Your task to perform on an android device: change the clock display to digital Image 0: 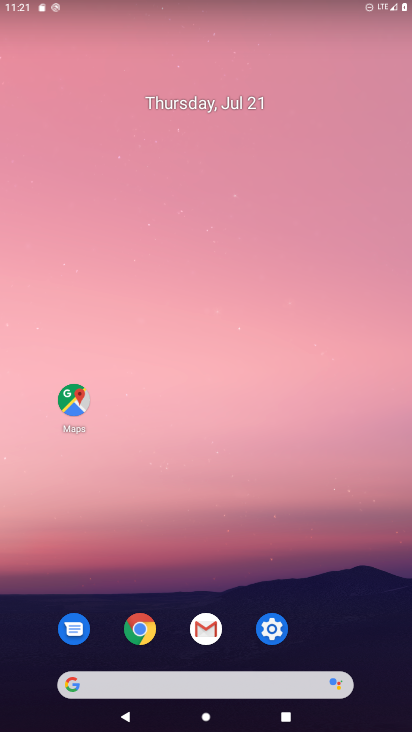
Step 0: drag from (262, 566) to (243, 12)
Your task to perform on an android device: change the clock display to digital Image 1: 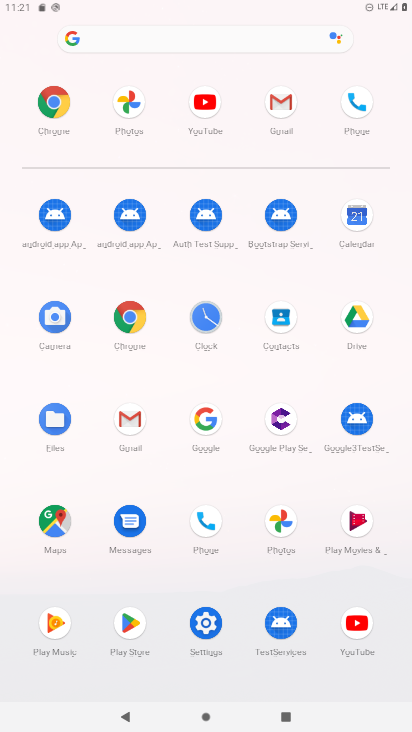
Step 1: click (196, 314)
Your task to perform on an android device: change the clock display to digital Image 2: 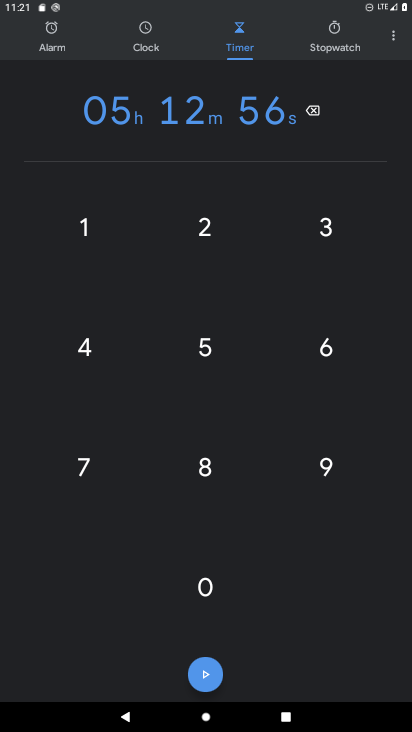
Step 2: click (385, 44)
Your task to perform on an android device: change the clock display to digital Image 3: 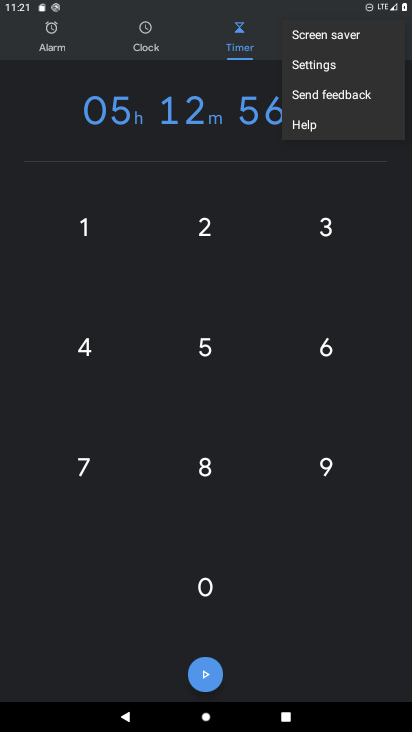
Step 3: click (343, 65)
Your task to perform on an android device: change the clock display to digital Image 4: 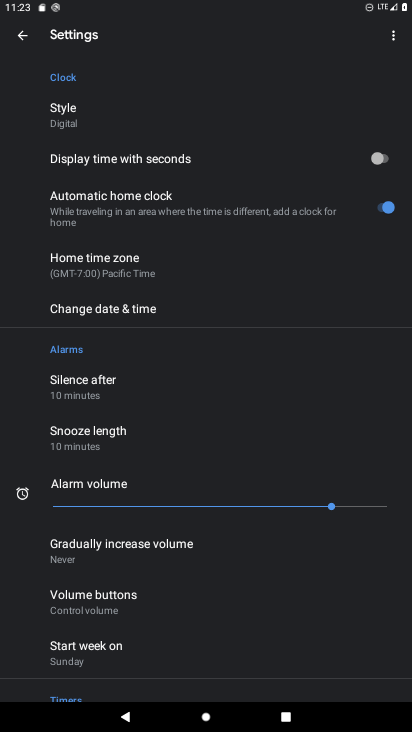
Step 4: task complete